Your task to perform on an android device: Open Google Image 0: 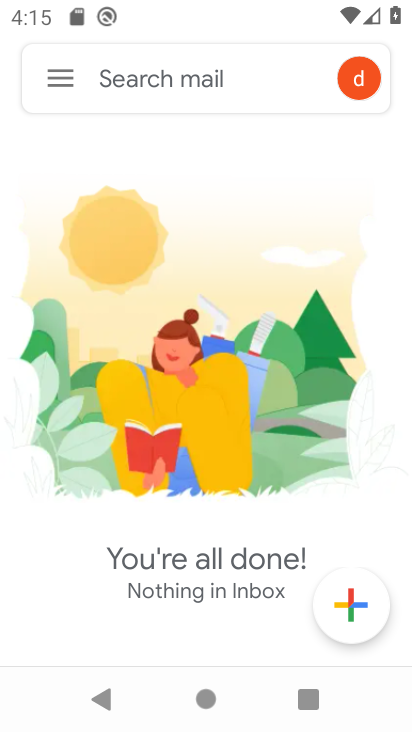
Step 0: press home button
Your task to perform on an android device: Open Google Image 1: 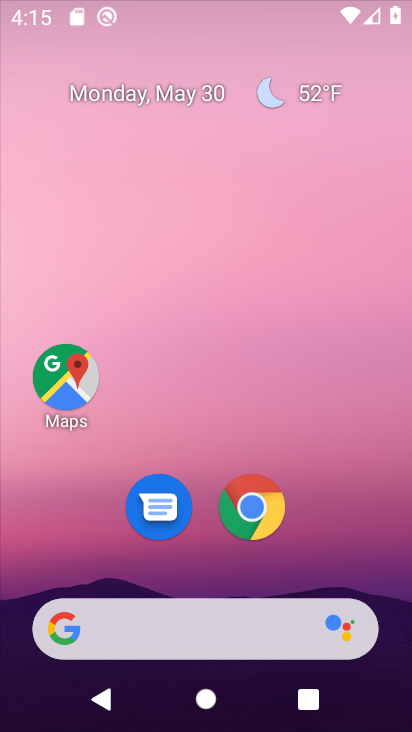
Step 1: drag from (292, 567) to (396, 119)
Your task to perform on an android device: Open Google Image 2: 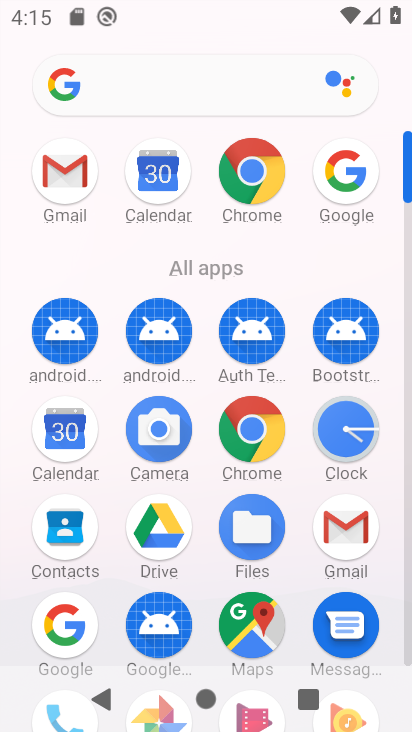
Step 2: click (59, 646)
Your task to perform on an android device: Open Google Image 3: 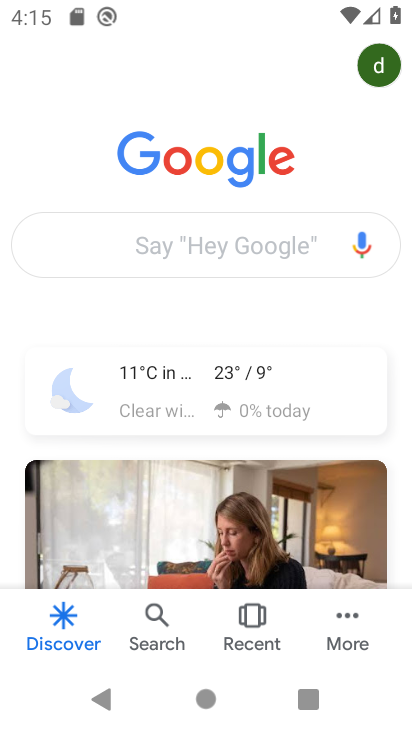
Step 3: task complete